Your task to perform on an android device: Open Youtube and go to "Your channel" Image 0: 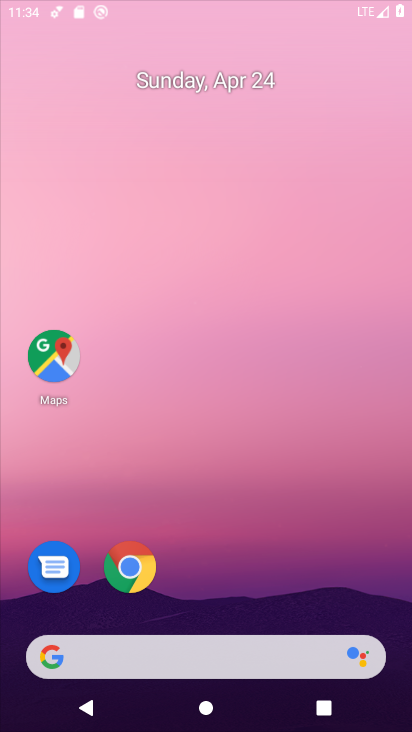
Step 0: drag from (249, 645) to (282, 310)
Your task to perform on an android device: Open Youtube and go to "Your channel" Image 1: 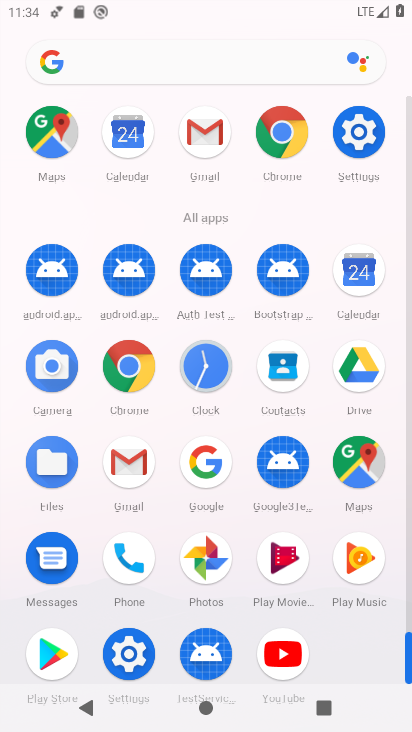
Step 1: click (278, 663)
Your task to perform on an android device: Open Youtube and go to "Your channel" Image 2: 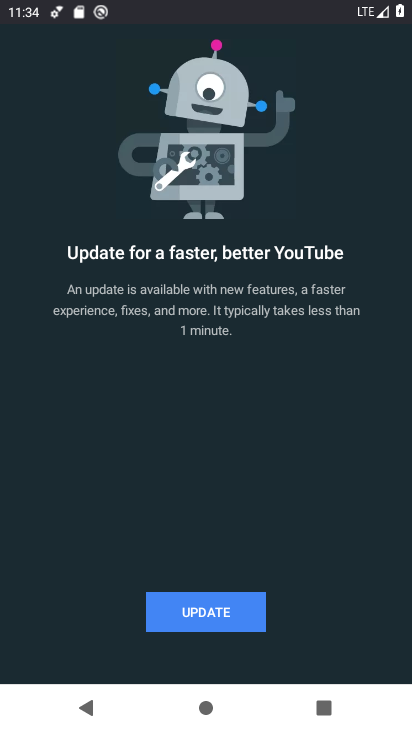
Step 2: click (278, 662)
Your task to perform on an android device: Open Youtube and go to "Your channel" Image 3: 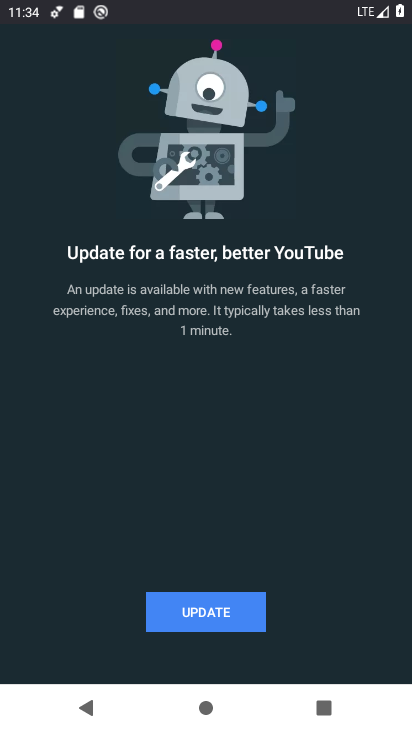
Step 3: task complete